Your task to perform on an android device: Open notification settings Image 0: 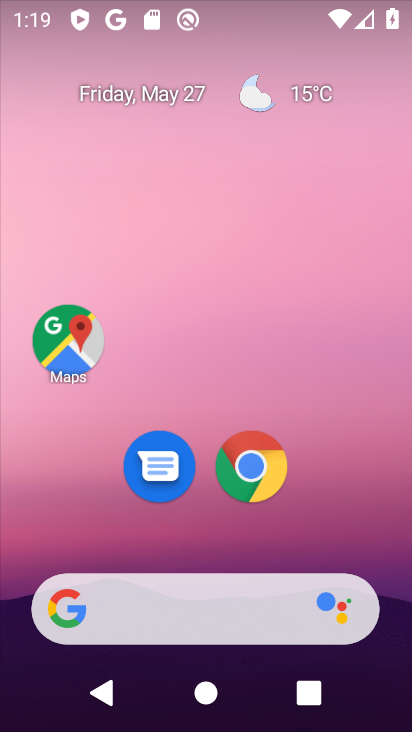
Step 0: click (352, 229)
Your task to perform on an android device: Open notification settings Image 1: 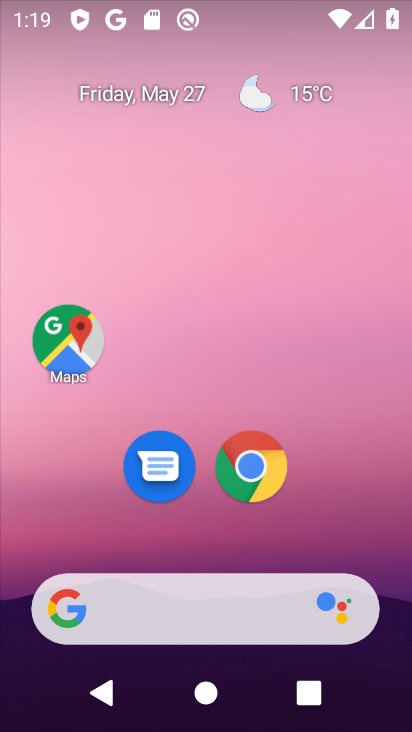
Step 1: drag from (98, 569) to (182, 172)
Your task to perform on an android device: Open notification settings Image 2: 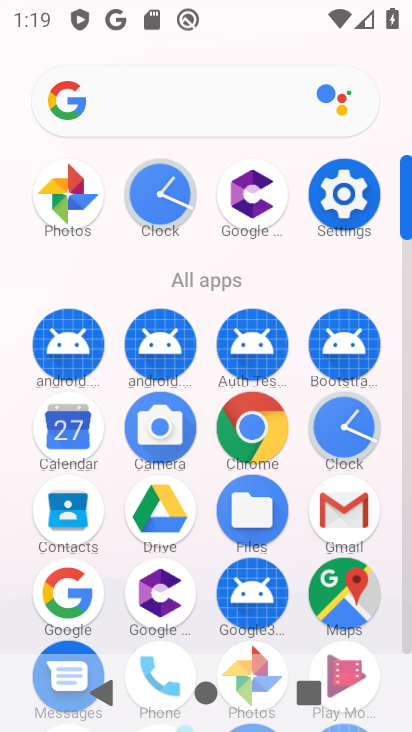
Step 2: drag from (146, 675) to (223, 397)
Your task to perform on an android device: Open notification settings Image 3: 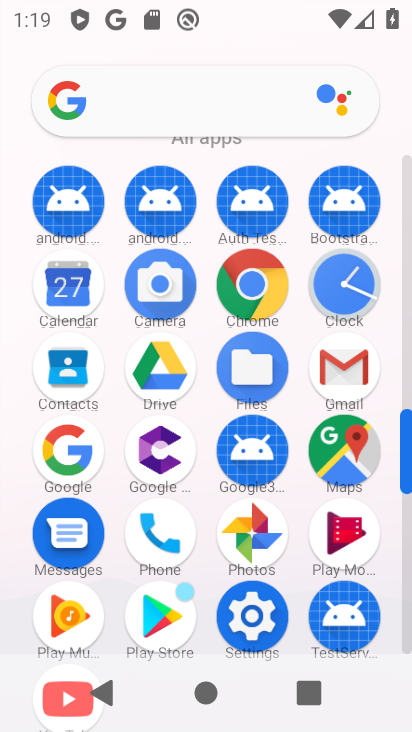
Step 3: click (264, 594)
Your task to perform on an android device: Open notification settings Image 4: 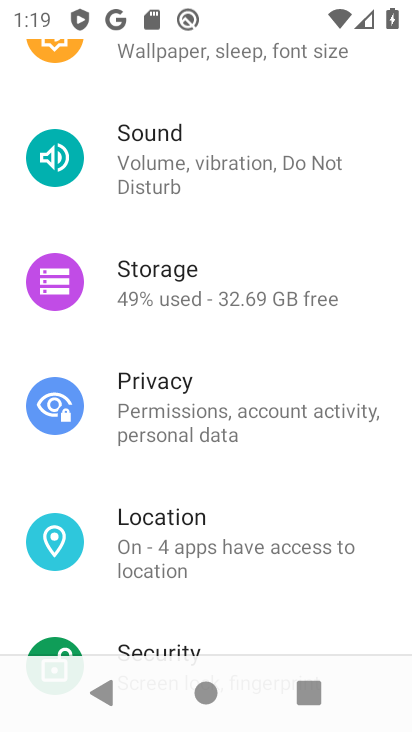
Step 4: drag from (276, 160) to (276, 512)
Your task to perform on an android device: Open notification settings Image 5: 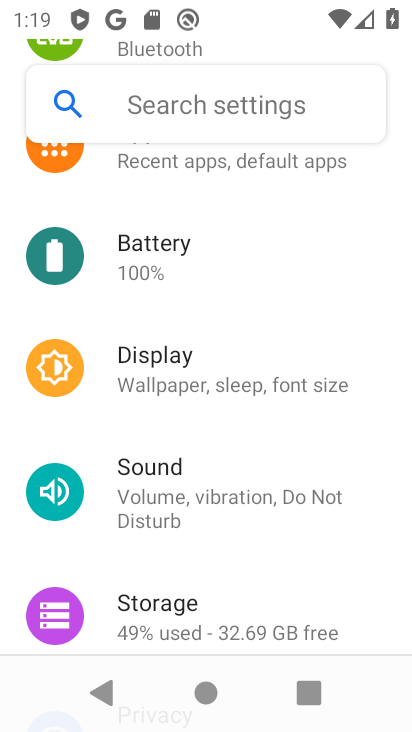
Step 5: click (285, 172)
Your task to perform on an android device: Open notification settings Image 6: 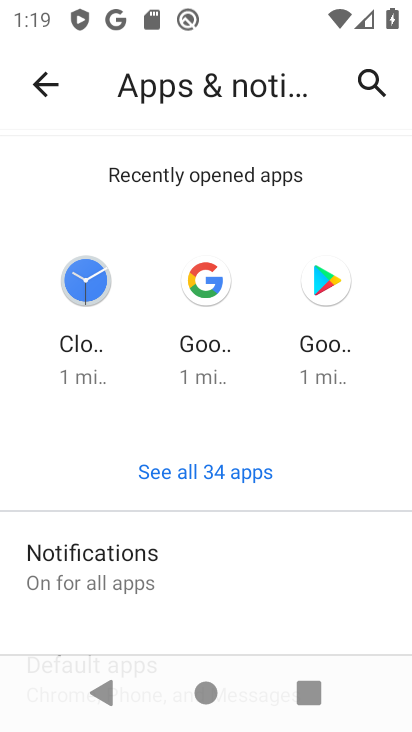
Step 6: click (161, 563)
Your task to perform on an android device: Open notification settings Image 7: 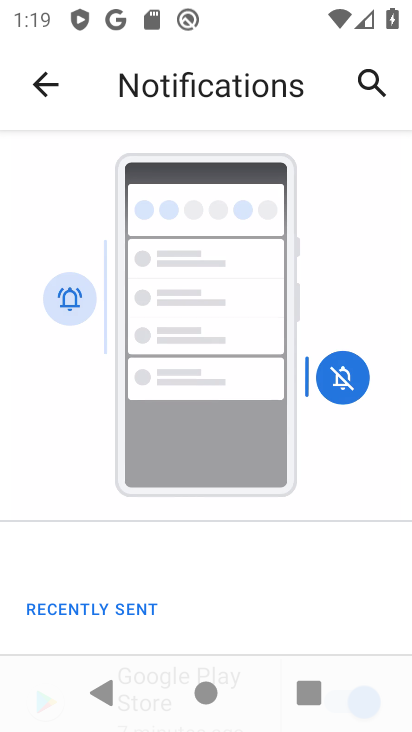
Step 7: task complete